Your task to perform on an android device: set the timer Image 0: 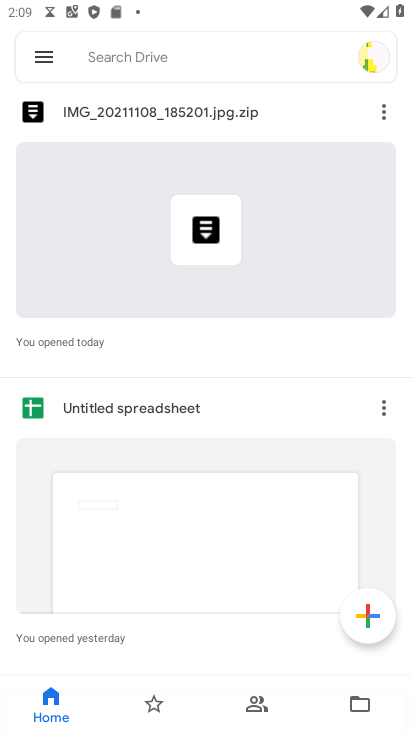
Step 0: press home button
Your task to perform on an android device: set the timer Image 1: 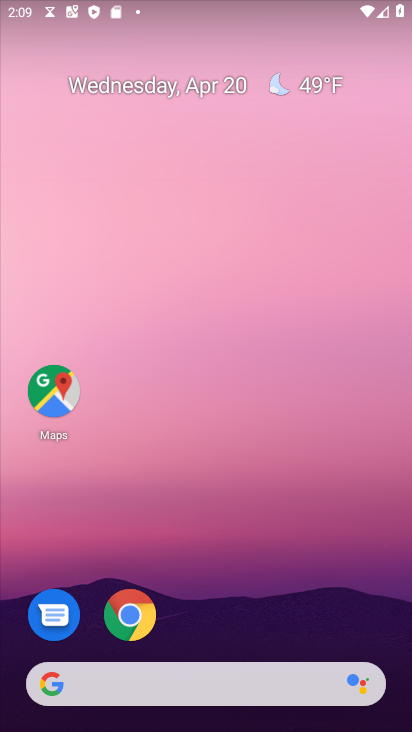
Step 1: drag from (276, 576) to (333, 44)
Your task to perform on an android device: set the timer Image 2: 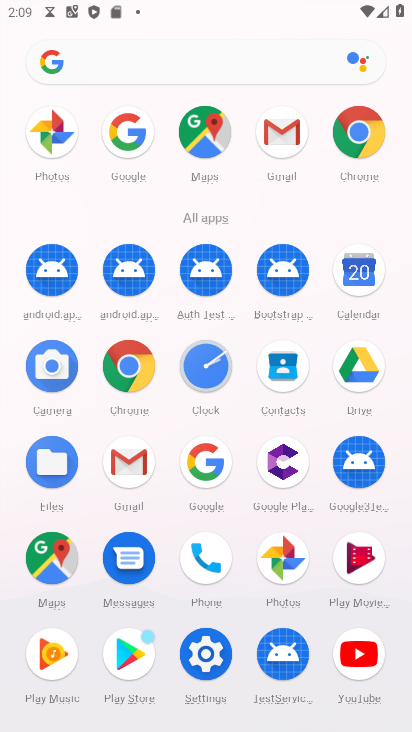
Step 2: click (200, 373)
Your task to perform on an android device: set the timer Image 3: 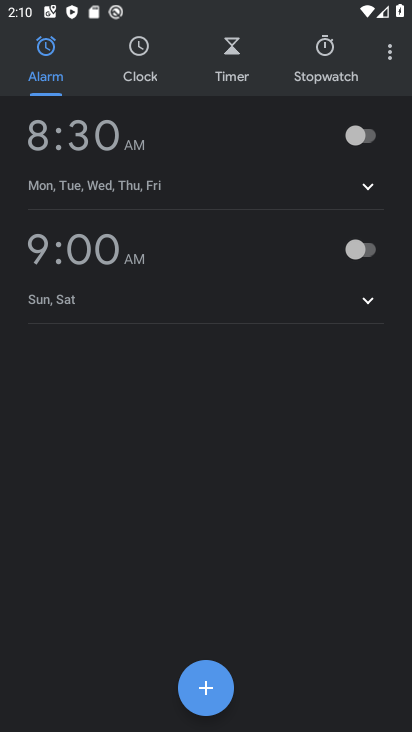
Step 3: click (244, 59)
Your task to perform on an android device: set the timer Image 4: 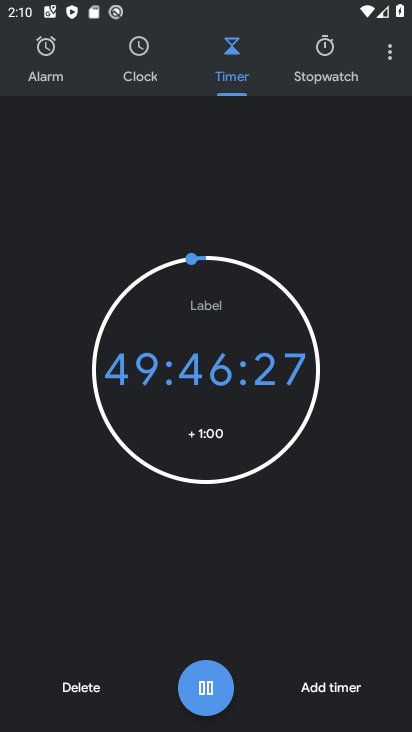
Step 4: click (343, 690)
Your task to perform on an android device: set the timer Image 5: 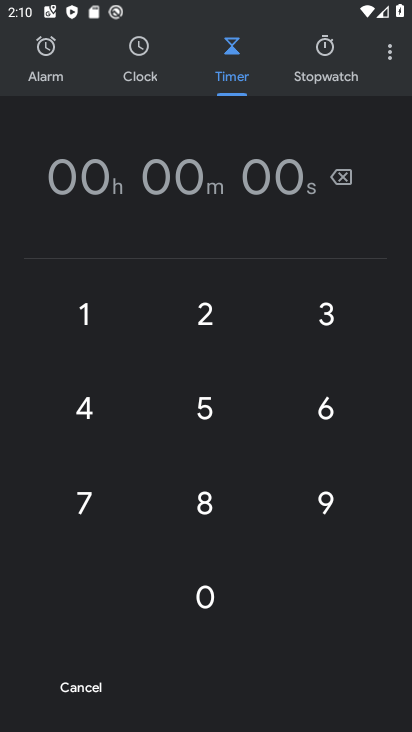
Step 5: click (214, 391)
Your task to perform on an android device: set the timer Image 6: 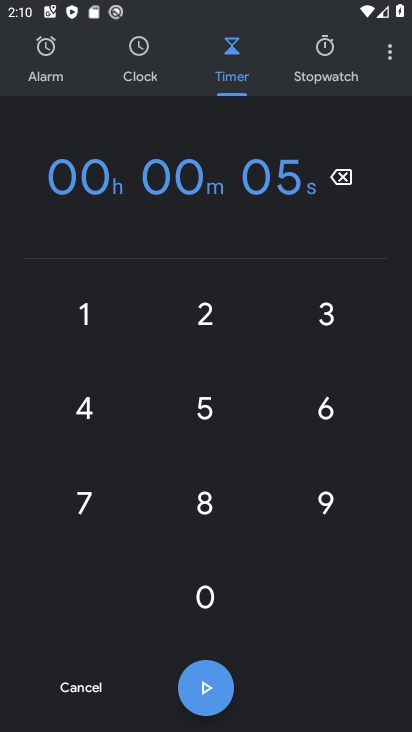
Step 6: click (216, 392)
Your task to perform on an android device: set the timer Image 7: 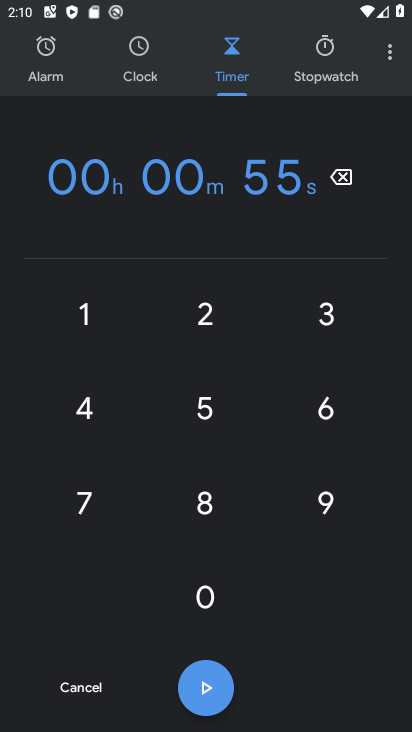
Step 7: click (196, 687)
Your task to perform on an android device: set the timer Image 8: 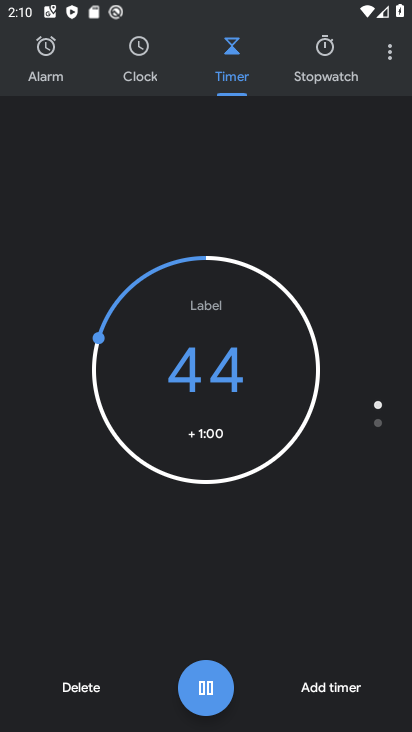
Step 8: task complete